Your task to perform on an android device: clear history in the chrome app Image 0: 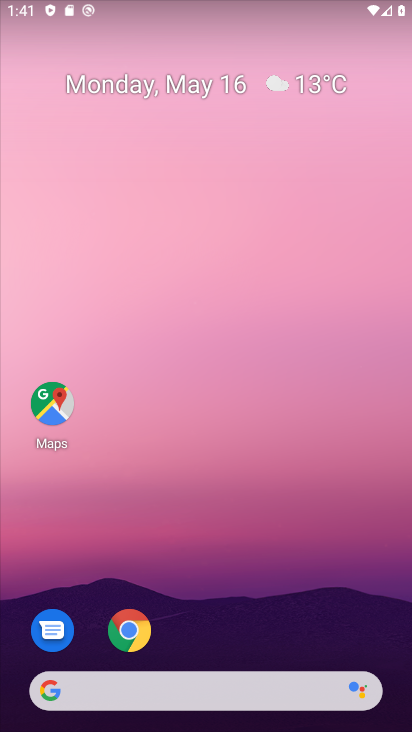
Step 0: drag from (307, 641) to (289, 90)
Your task to perform on an android device: clear history in the chrome app Image 1: 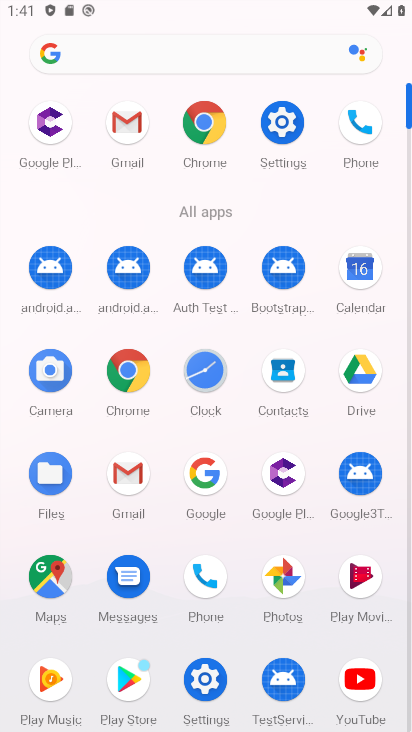
Step 1: click (132, 369)
Your task to perform on an android device: clear history in the chrome app Image 2: 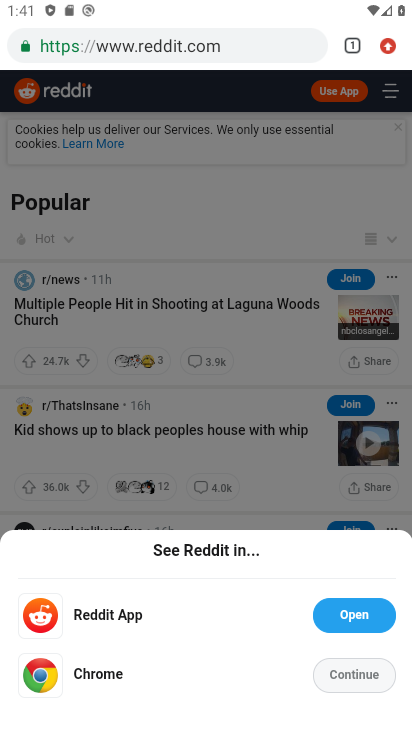
Step 2: drag from (379, 47) to (257, 311)
Your task to perform on an android device: clear history in the chrome app Image 3: 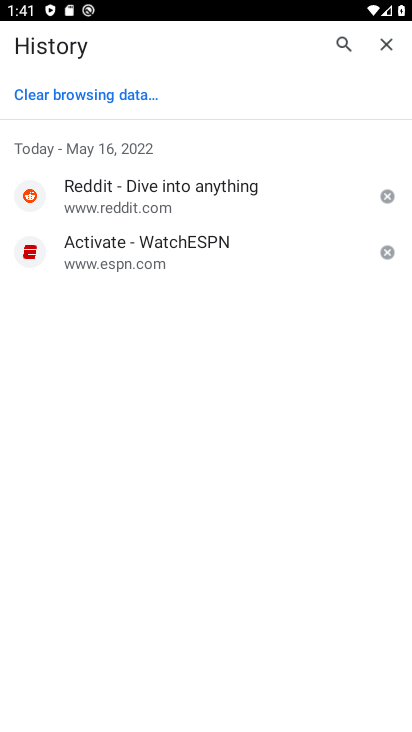
Step 3: click (67, 99)
Your task to perform on an android device: clear history in the chrome app Image 4: 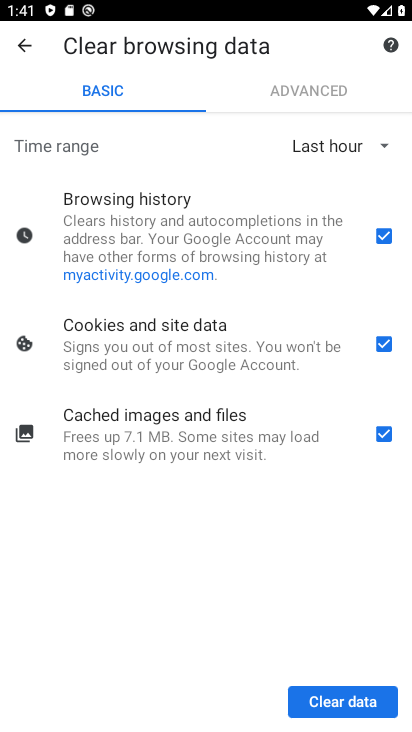
Step 4: click (357, 698)
Your task to perform on an android device: clear history in the chrome app Image 5: 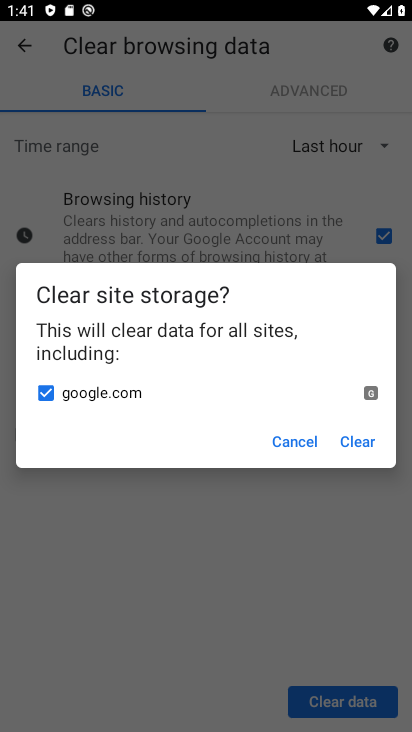
Step 5: click (364, 443)
Your task to perform on an android device: clear history in the chrome app Image 6: 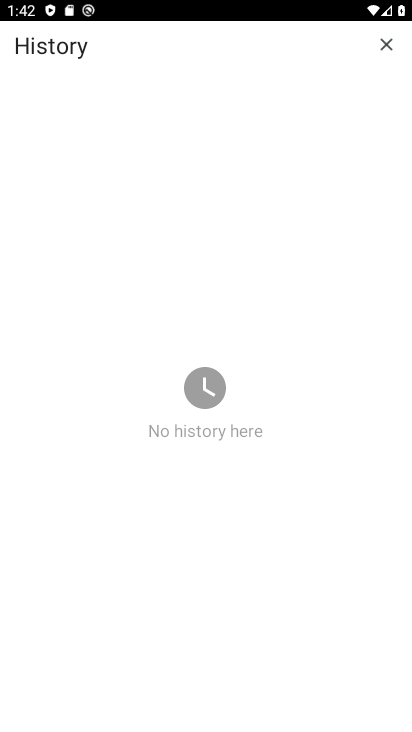
Step 6: task complete